Your task to perform on an android device: Google the capital of Chile Image 0: 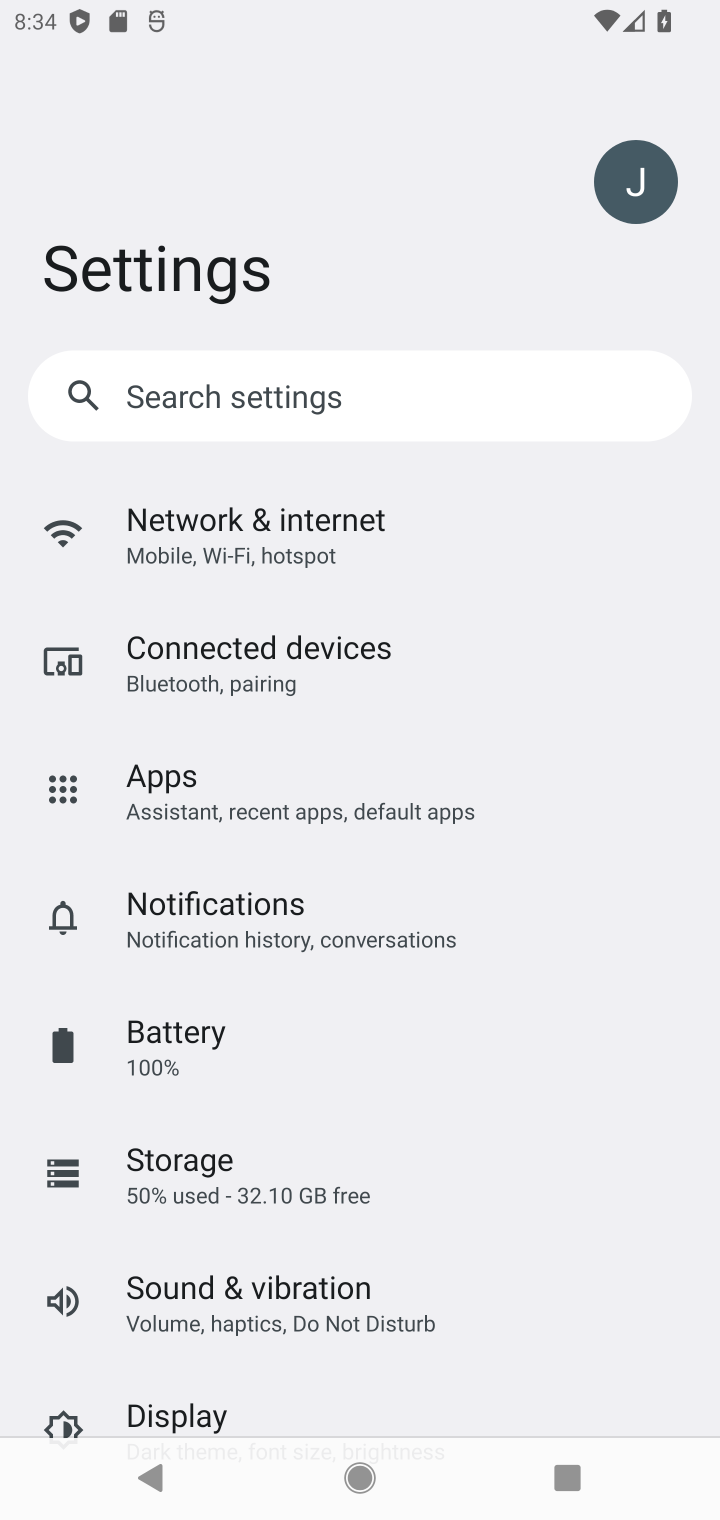
Step 0: press home button
Your task to perform on an android device: Google the capital of Chile Image 1: 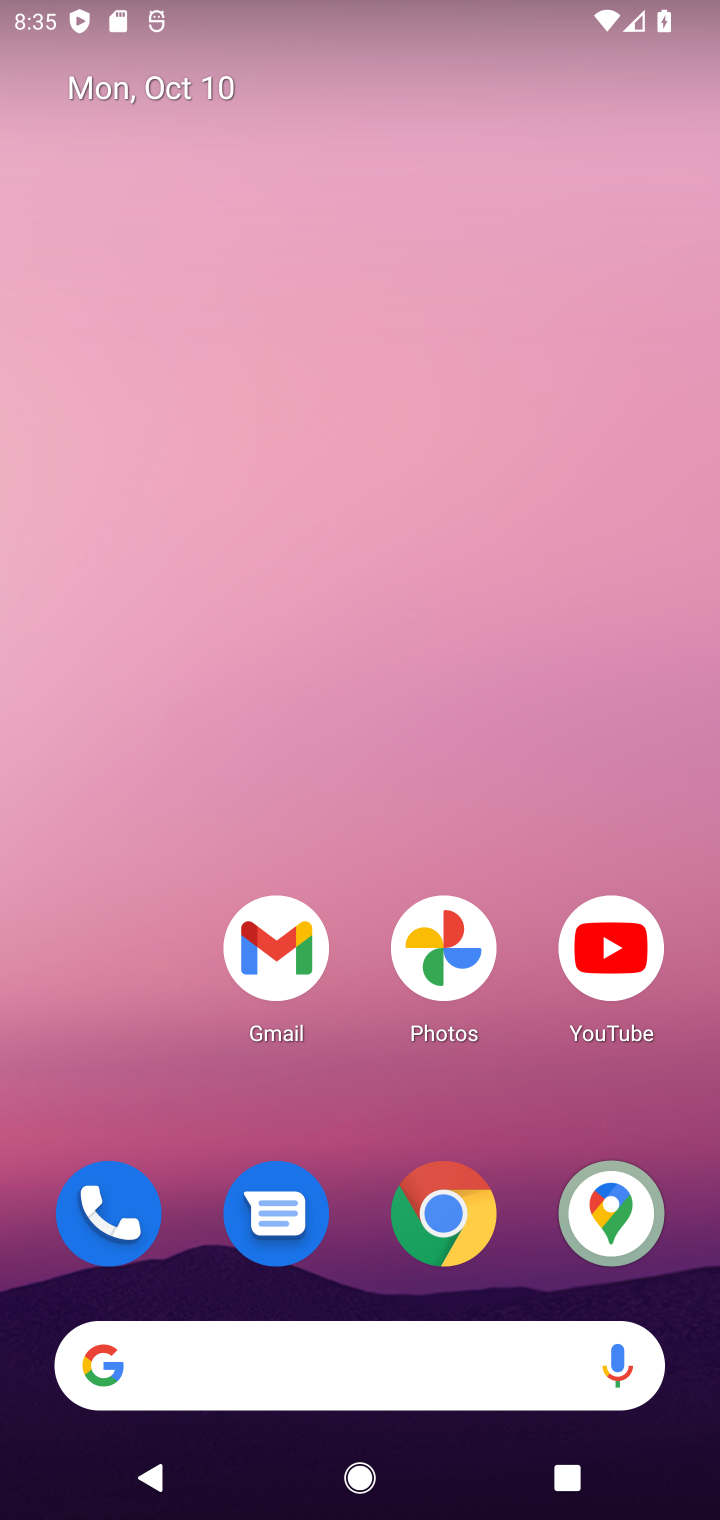
Step 1: click (307, 1341)
Your task to perform on an android device: Google the capital of Chile Image 2: 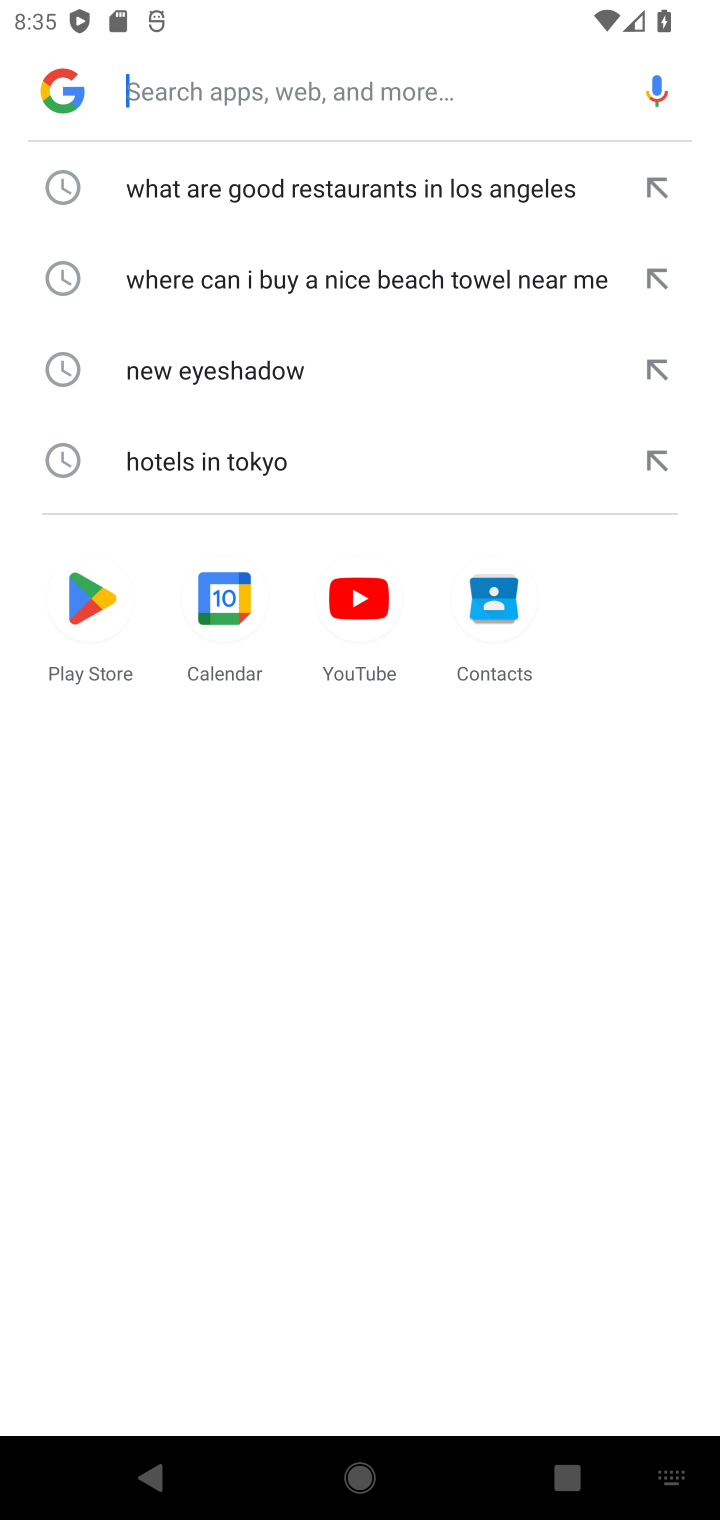
Step 2: click (196, 82)
Your task to perform on an android device: Google the capital of Chile Image 3: 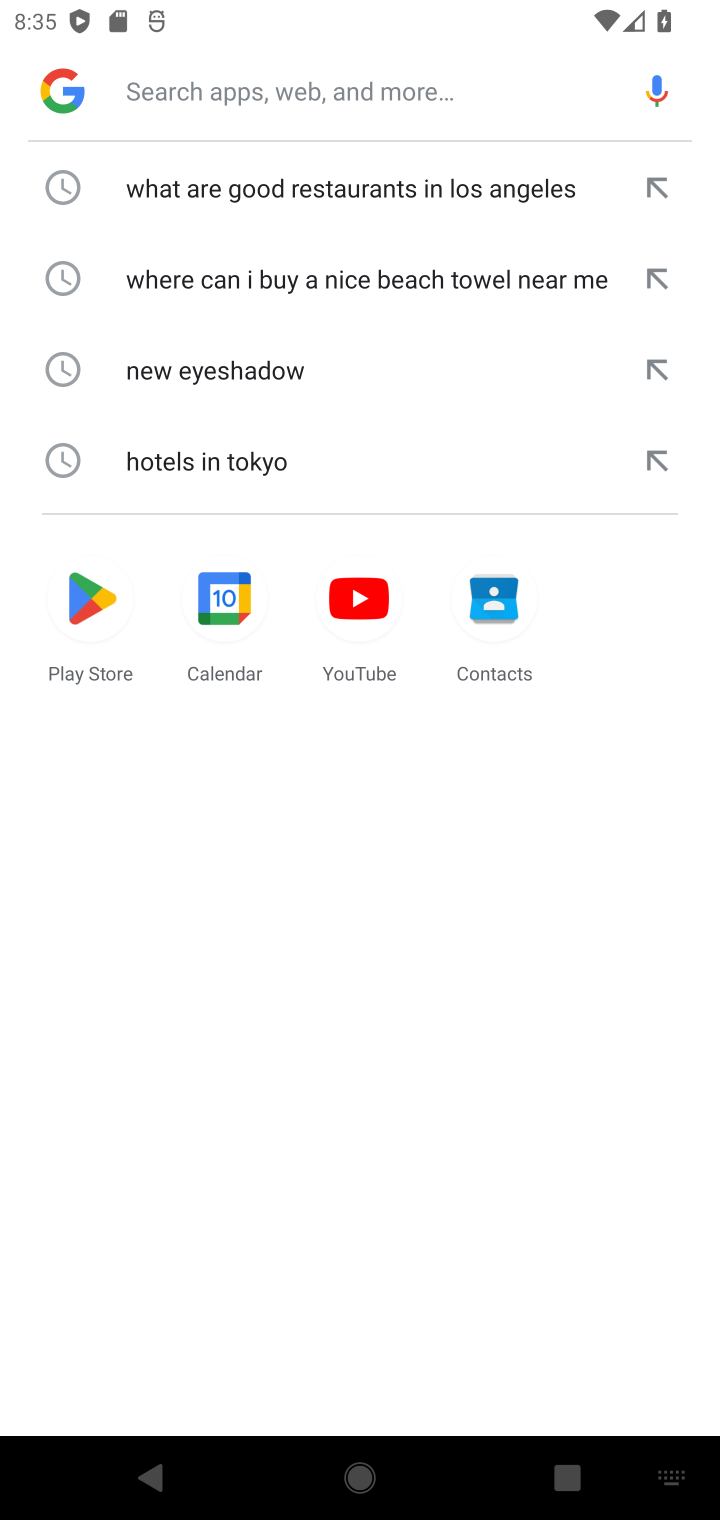
Step 3: type "capital of Chile"
Your task to perform on an android device: Google the capital of Chile Image 4: 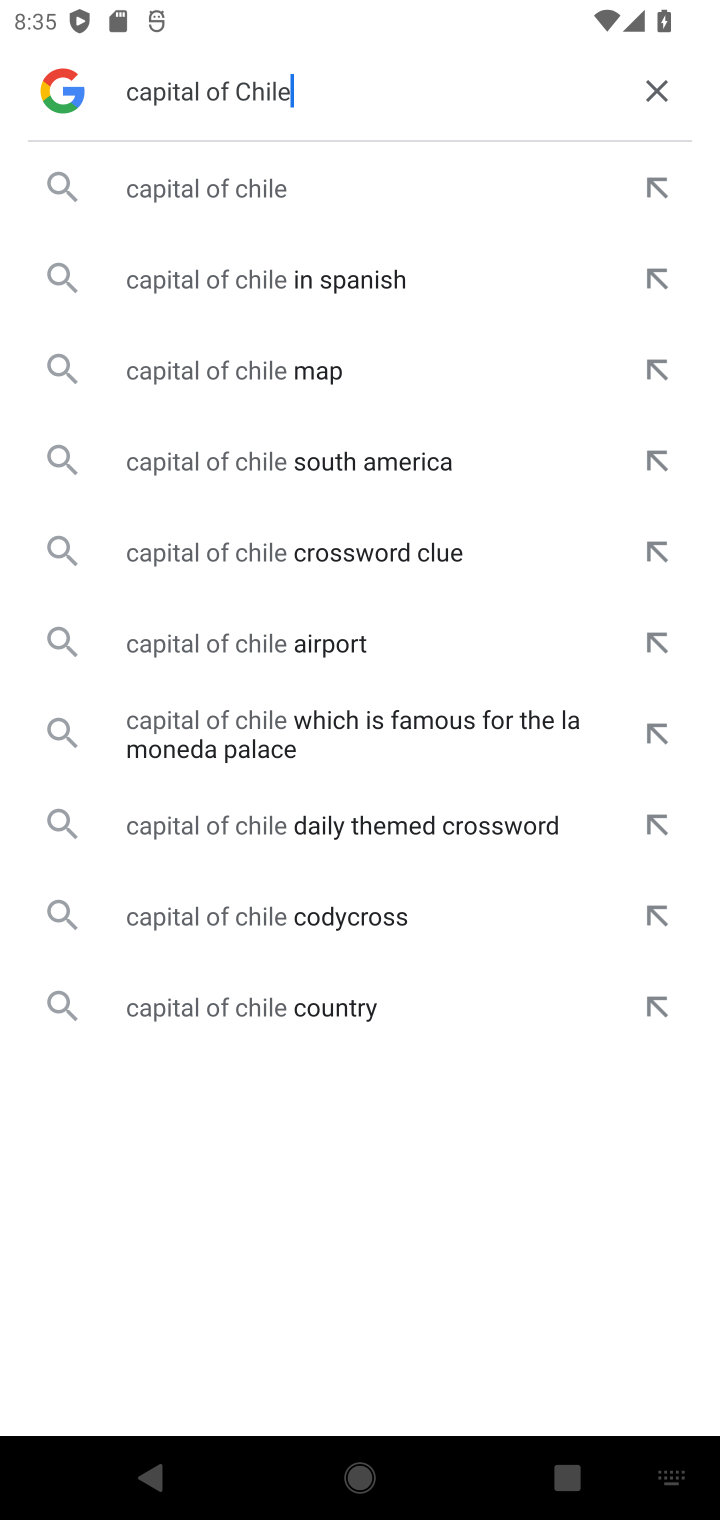
Step 4: click (232, 168)
Your task to perform on an android device: Google the capital of Chile Image 5: 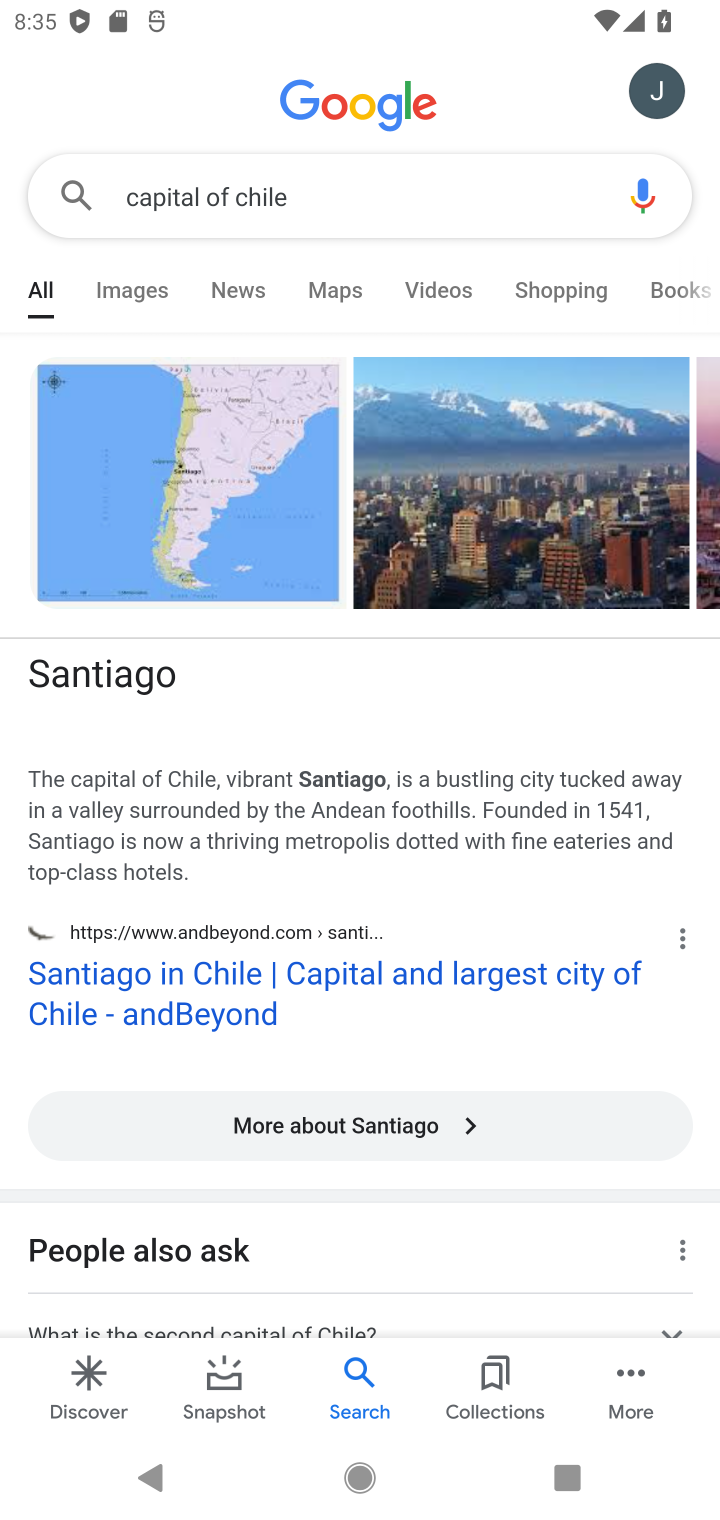
Step 5: task complete